Your task to perform on an android device: change notifications settings Image 0: 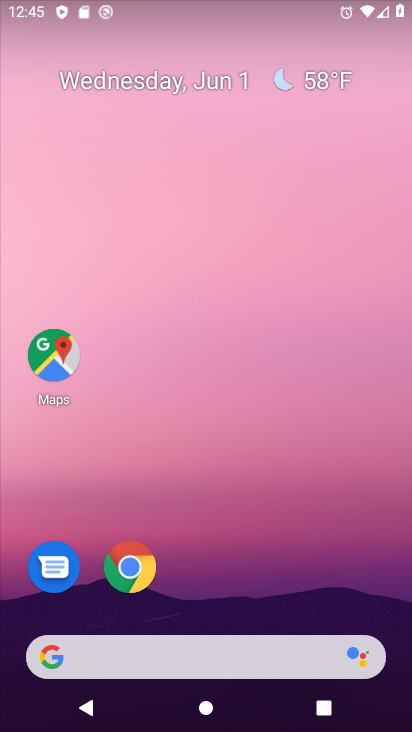
Step 0: drag from (223, 564) to (233, 40)
Your task to perform on an android device: change notifications settings Image 1: 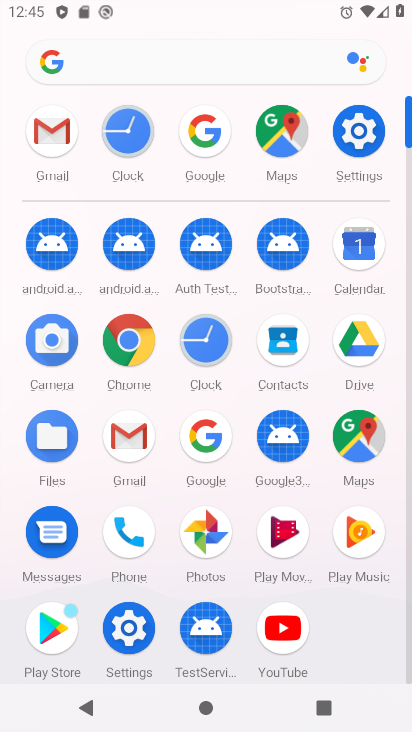
Step 1: click (351, 129)
Your task to perform on an android device: change notifications settings Image 2: 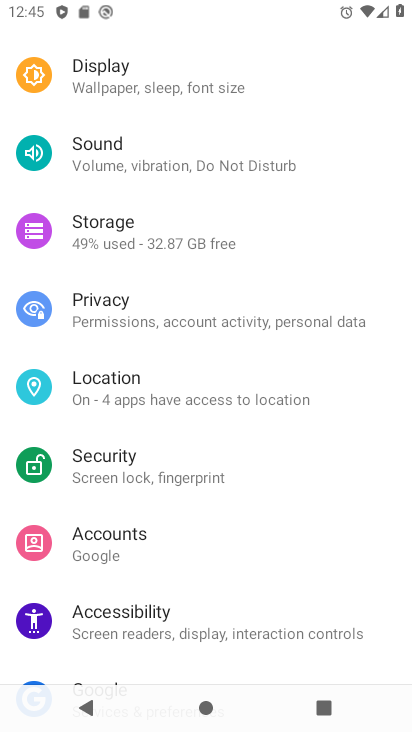
Step 2: drag from (139, 118) to (204, 434)
Your task to perform on an android device: change notifications settings Image 3: 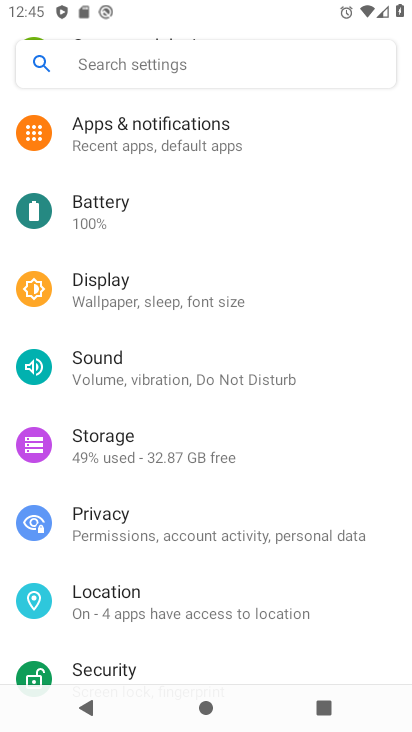
Step 3: click (141, 134)
Your task to perform on an android device: change notifications settings Image 4: 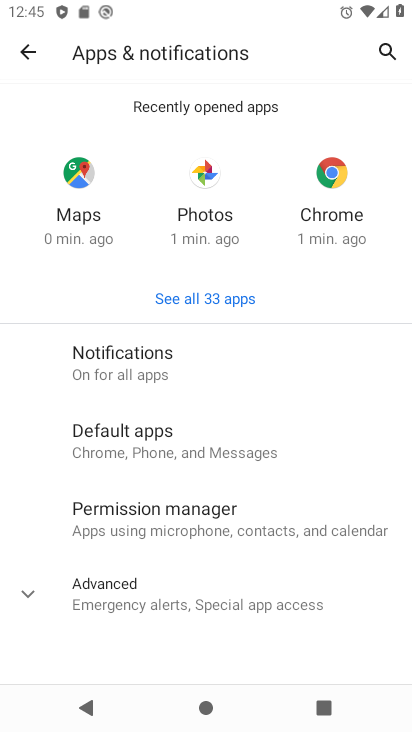
Step 4: click (119, 363)
Your task to perform on an android device: change notifications settings Image 5: 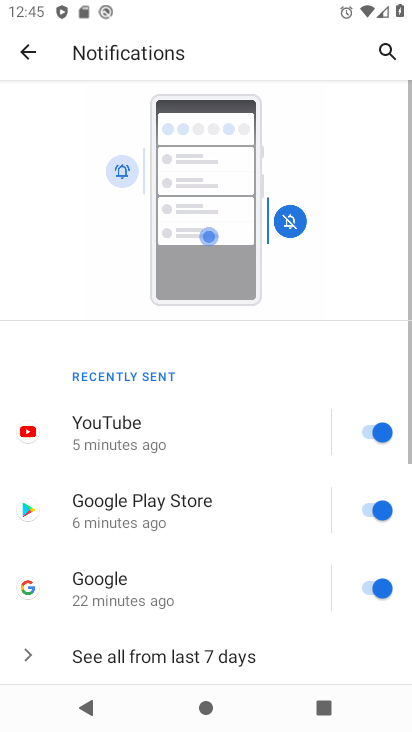
Step 5: drag from (323, 655) to (297, 60)
Your task to perform on an android device: change notifications settings Image 6: 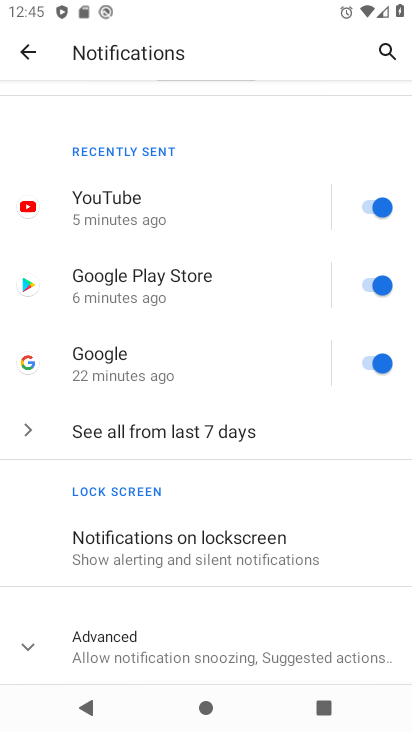
Step 6: click (193, 648)
Your task to perform on an android device: change notifications settings Image 7: 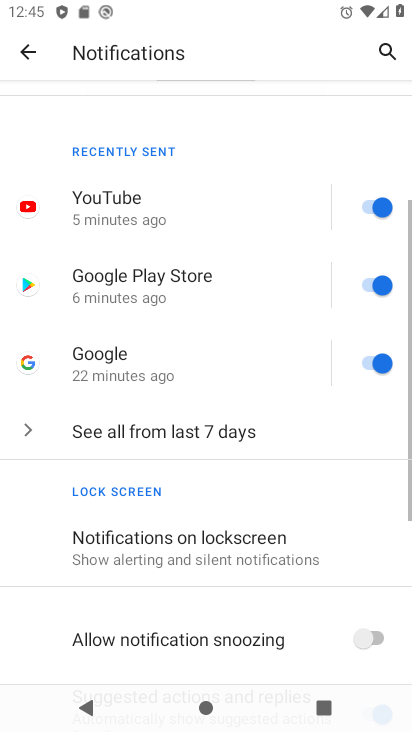
Step 7: drag from (266, 578) to (295, 259)
Your task to perform on an android device: change notifications settings Image 8: 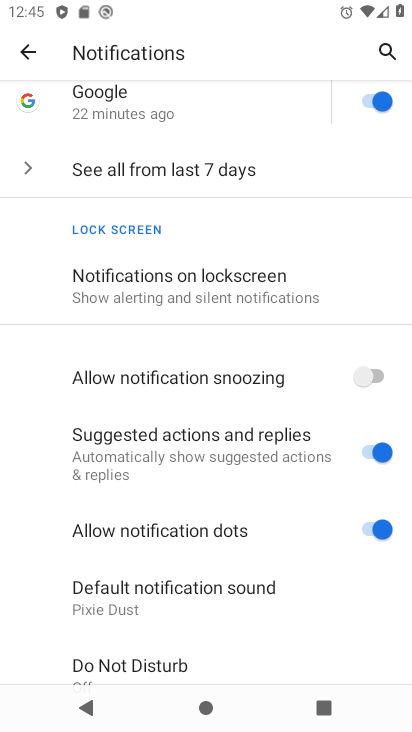
Step 8: click (366, 375)
Your task to perform on an android device: change notifications settings Image 9: 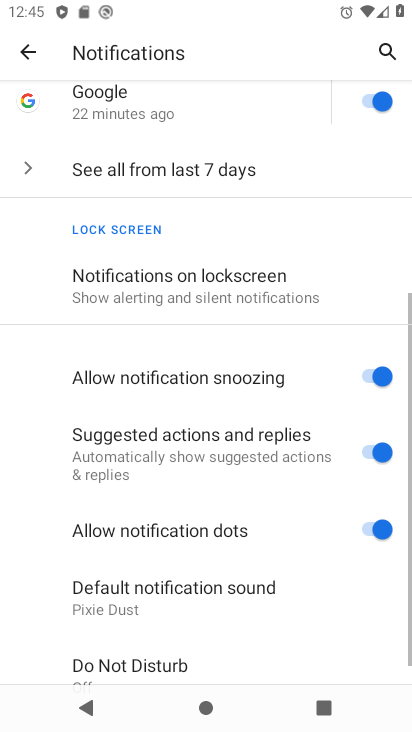
Step 9: click (385, 448)
Your task to perform on an android device: change notifications settings Image 10: 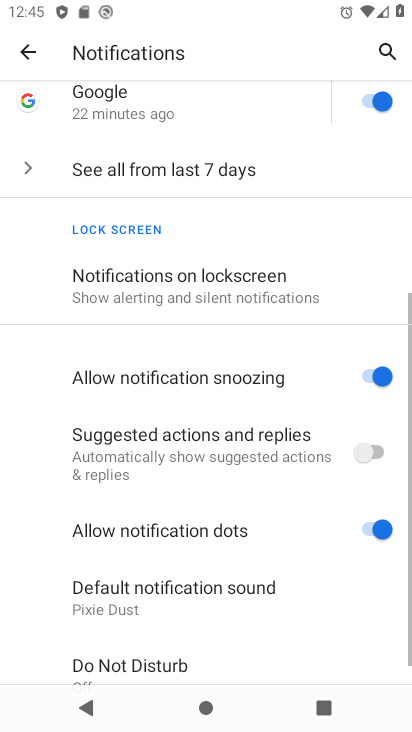
Step 10: click (390, 532)
Your task to perform on an android device: change notifications settings Image 11: 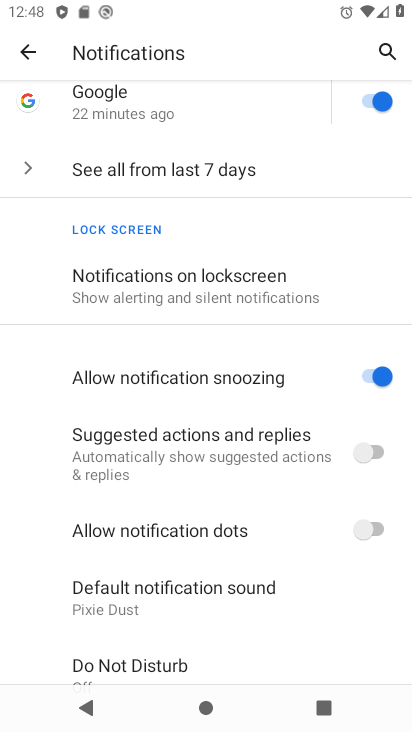
Step 11: task complete